Your task to perform on an android device: turn off notifications in google photos Image 0: 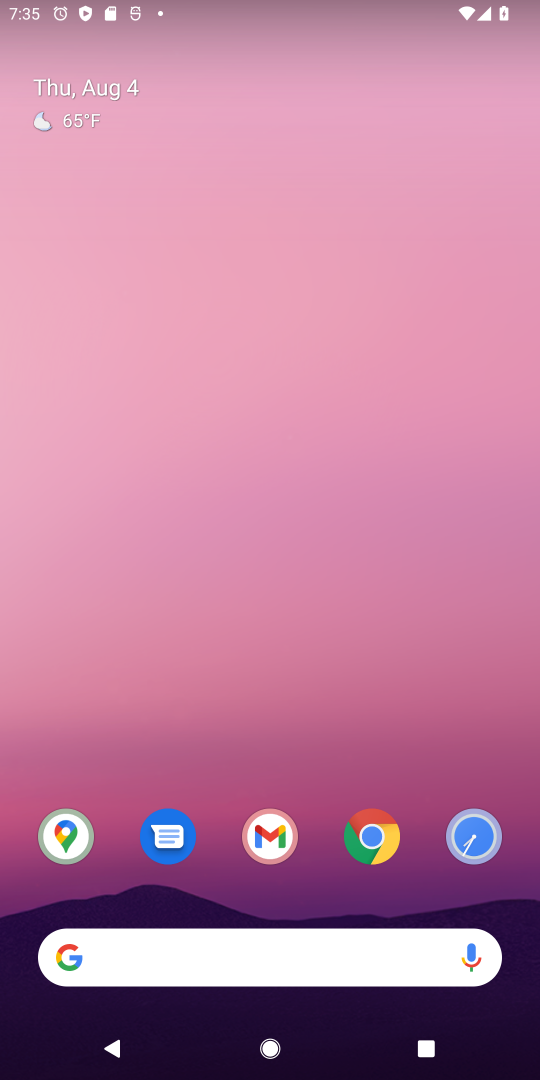
Step 0: drag from (214, 743) to (253, 321)
Your task to perform on an android device: turn off notifications in google photos Image 1: 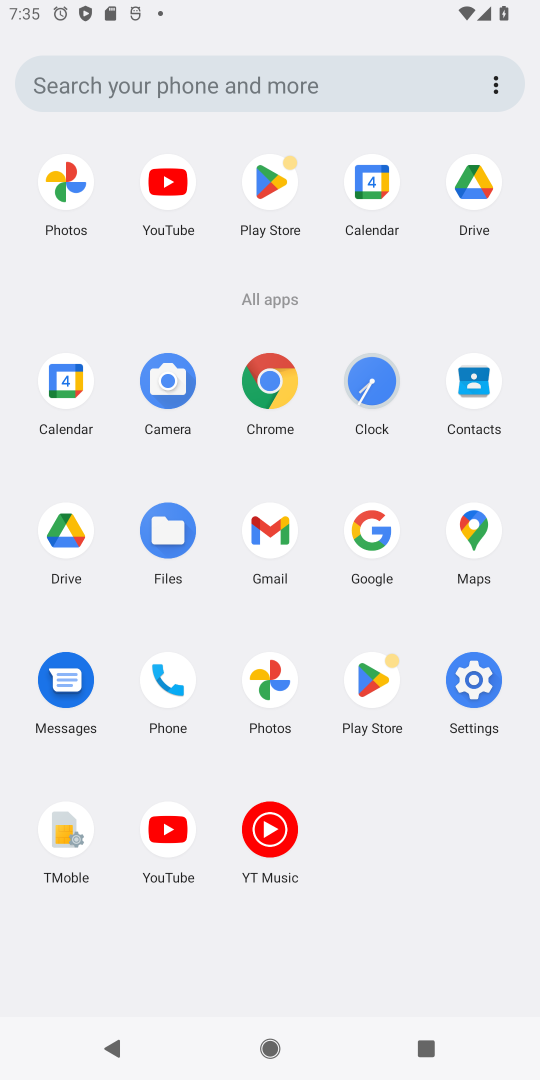
Step 1: click (252, 669)
Your task to perform on an android device: turn off notifications in google photos Image 2: 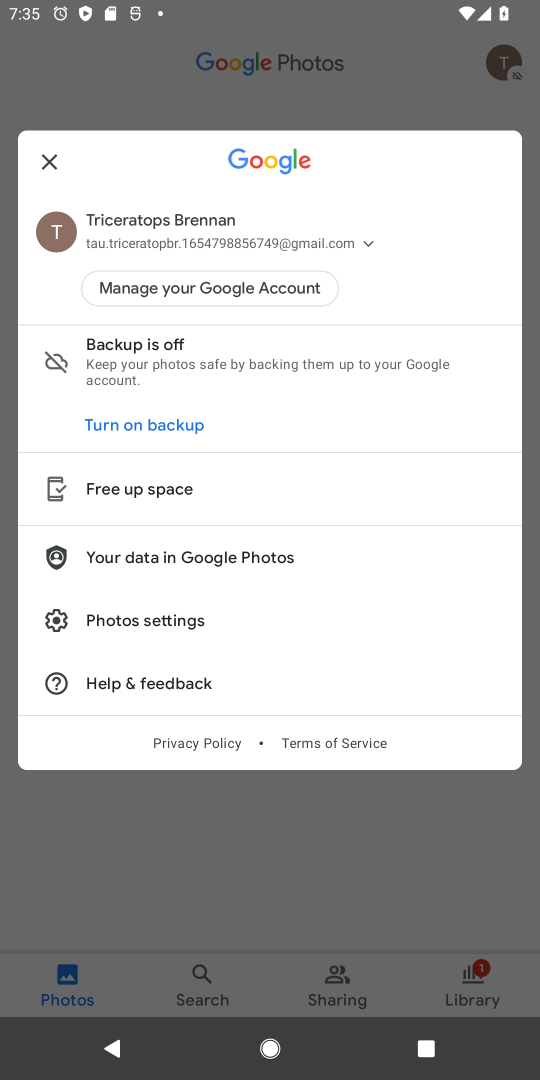
Step 2: press back button
Your task to perform on an android device: turn off notifications in google photos Image 3: 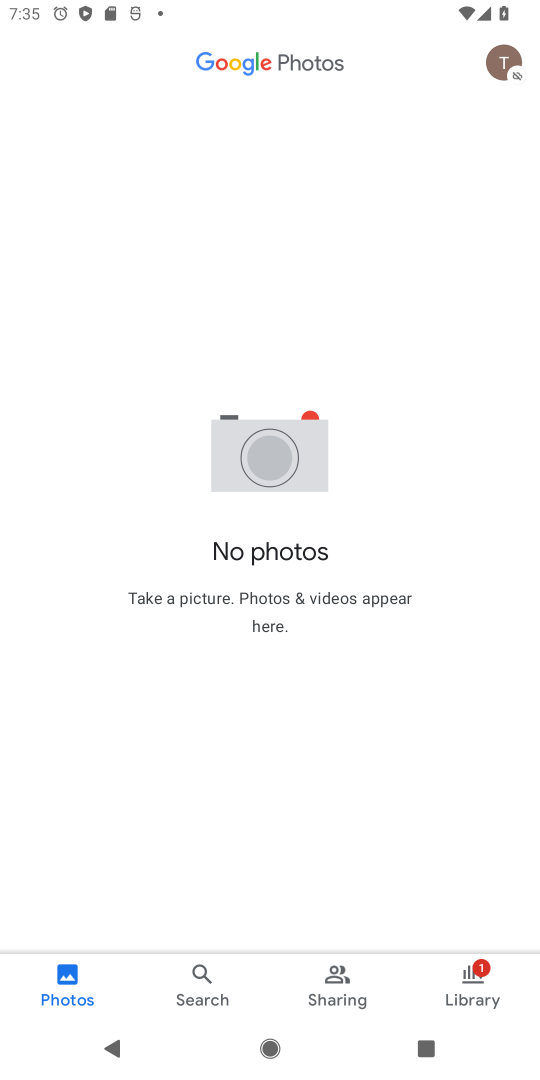
Step 3: press back button
Your task to perform on an android device: turn off notifications in google photos Image 4: 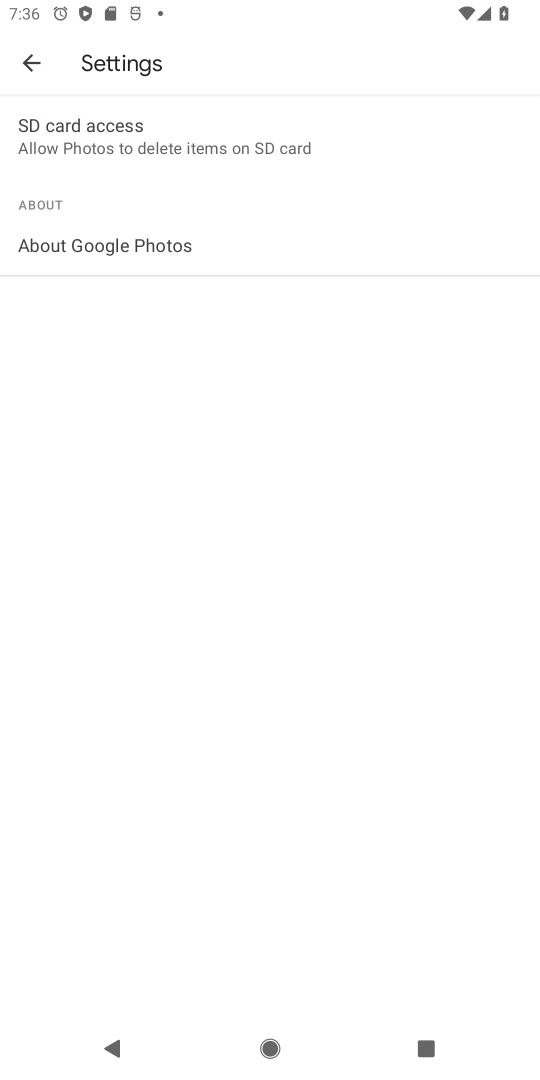
Step 4: press back button
Your task to perform on an android device: turn off notifications in google photos Image 5: 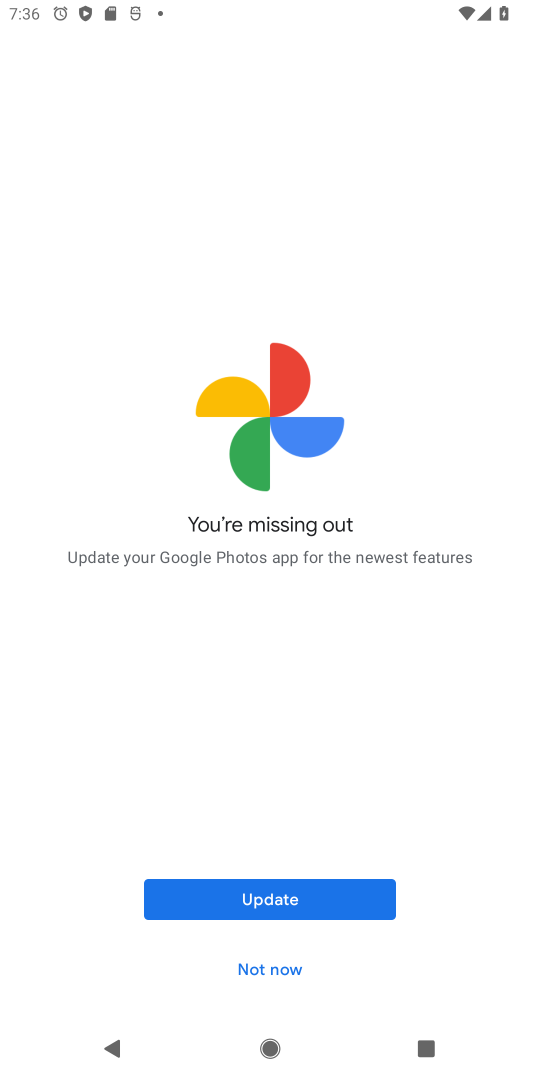
Step 5: press back button
Your task to perform on an android device: turn off notifications in google photos Image 6: 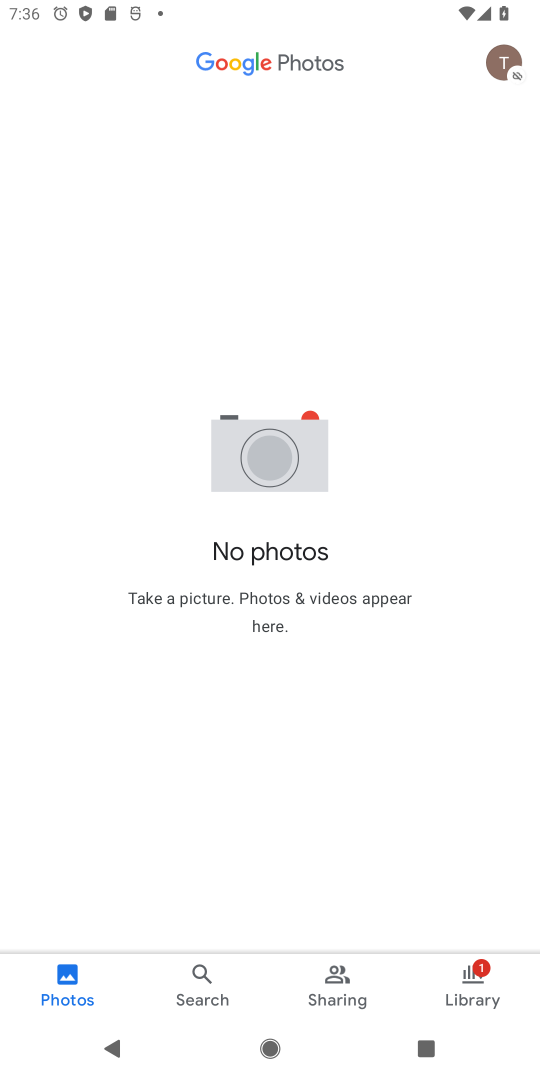
Step 6: press home button
Your task to perform on an android device: turn off notifications in google photos Image 7: 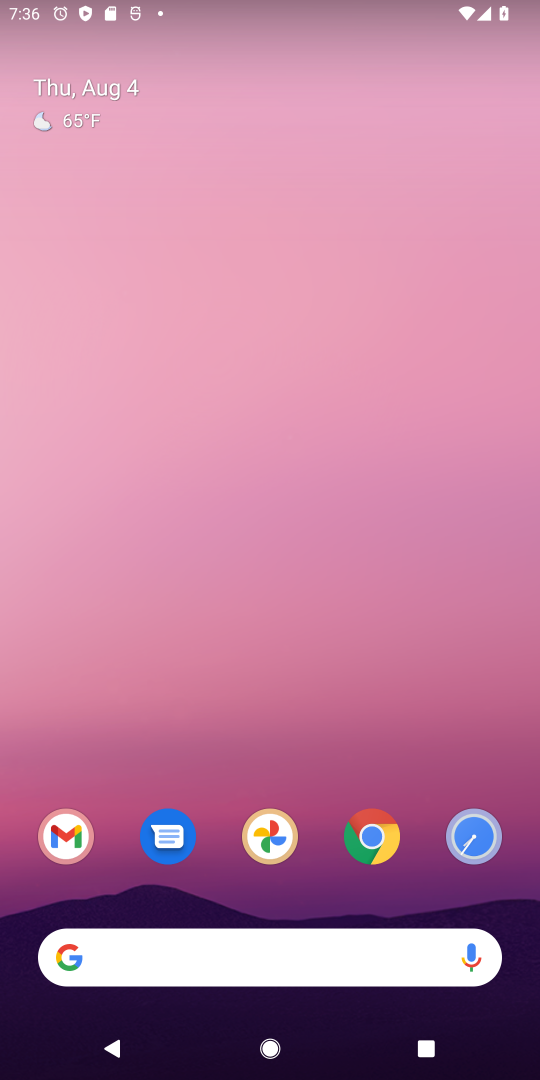
Step 7: click (282, 850)
Your task to perform on an android device: turn off notifications in google photos Image 8: 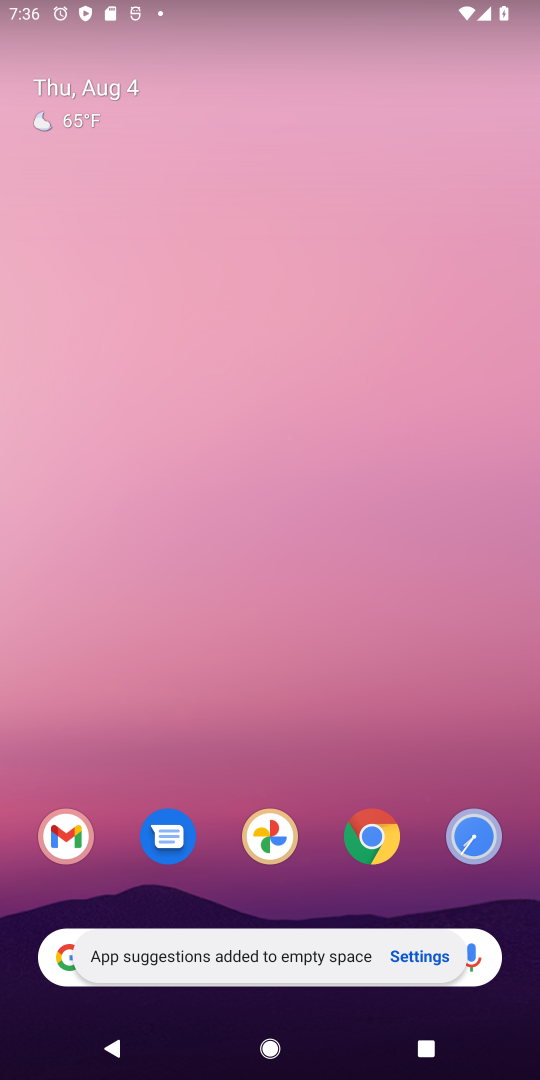
Step 8: click (277, 833)
Your task to perform on an android device: turn off notifications in google photos Image 9: 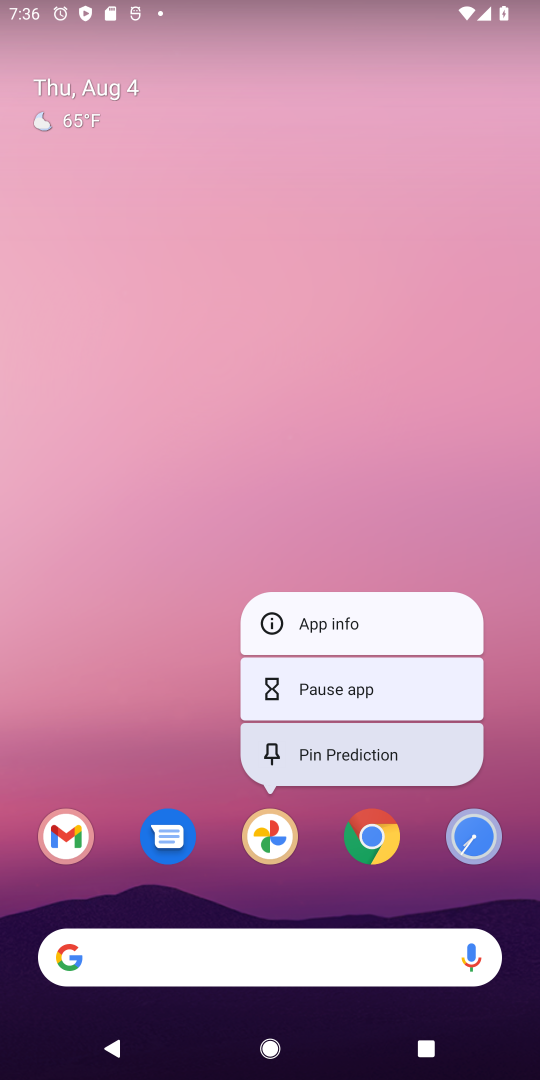
Step 9: click (292, 625)
Your task to perform on an android device: turn off notifications in google photos Image 10: 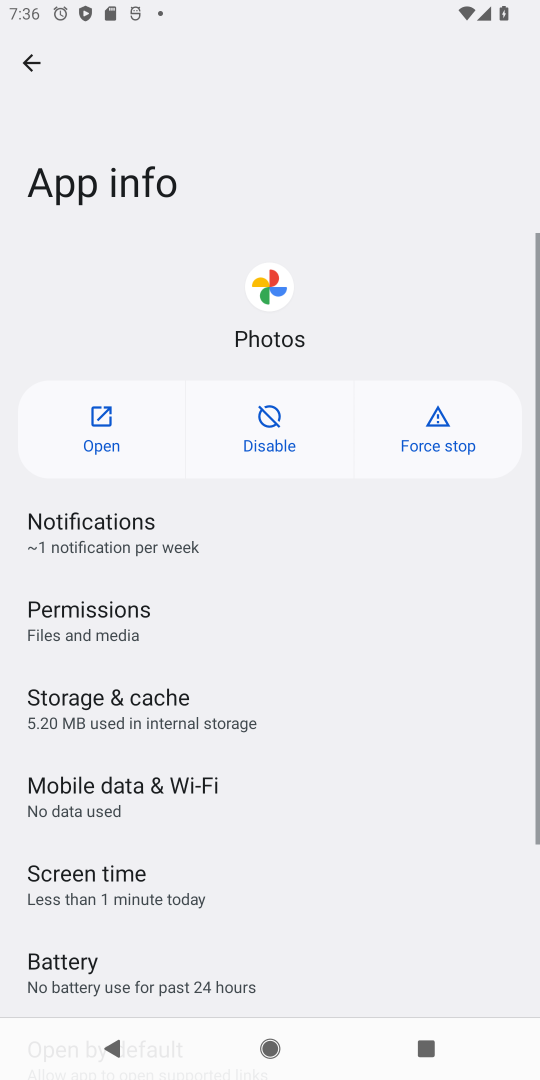
Step 10: click (159, 519)
Your task to perform on an android device: turn off notifications in google photos Image 11: 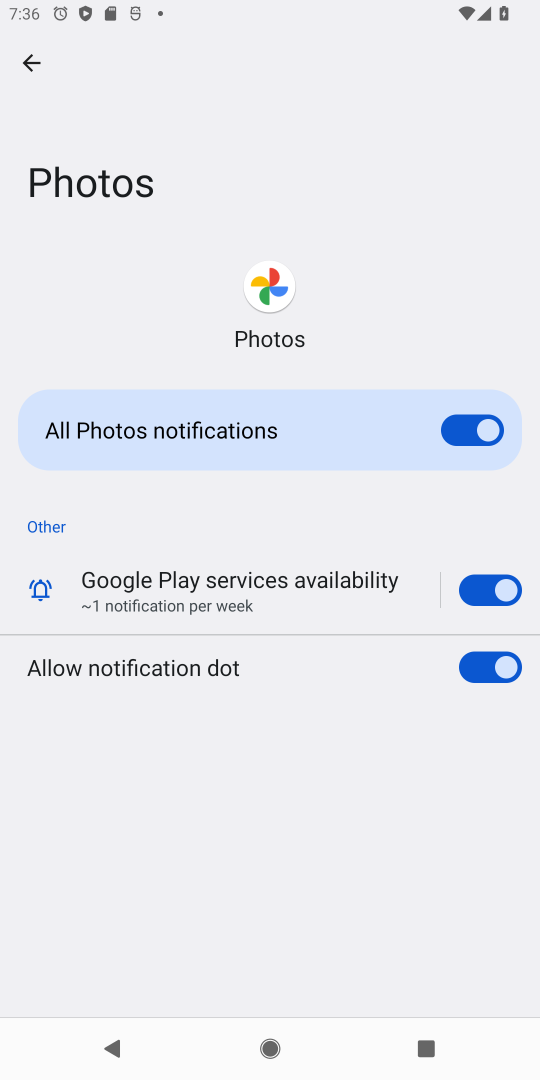
Step 11: click (487, 426)
Your task to perform on an android device: turn off notifications in google photos Image 12: 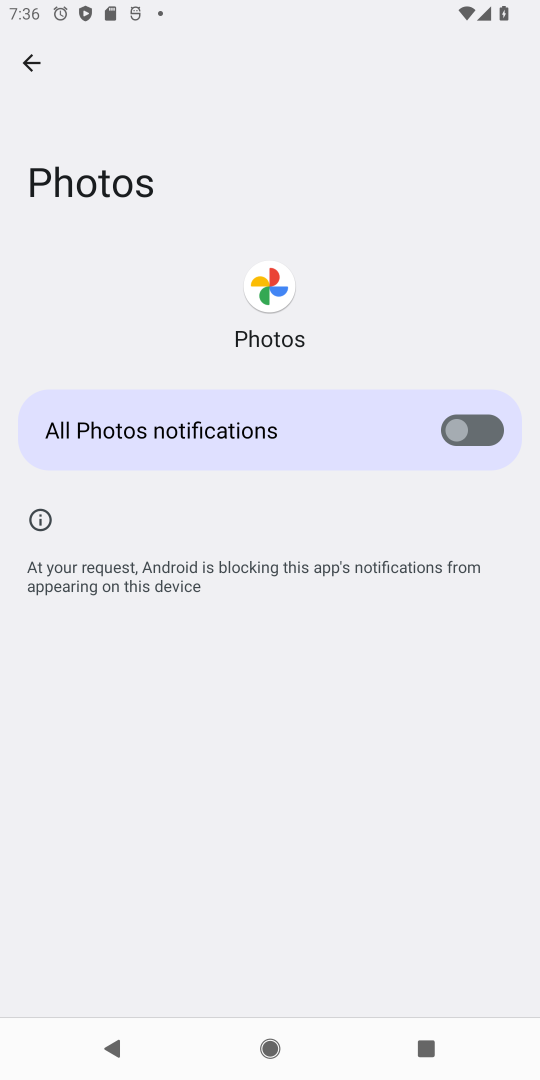
Step 12: task complete